Your task to perform on an android device: Open my contact list Image 0: 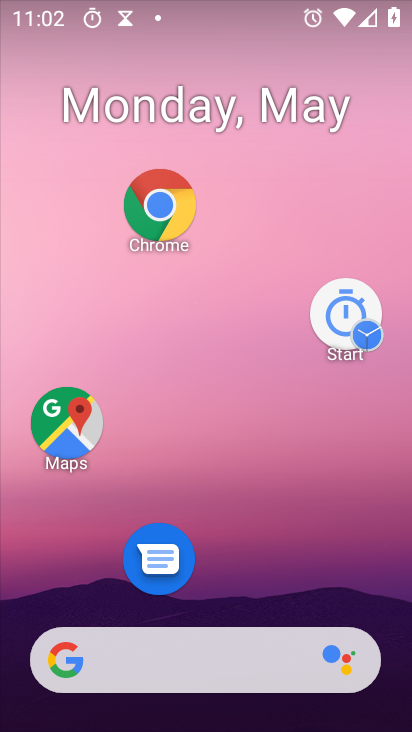
Step 0: drag from (248, 706) to (128, 76)
Your task to perform on an android device: Open my contact list Image 1: 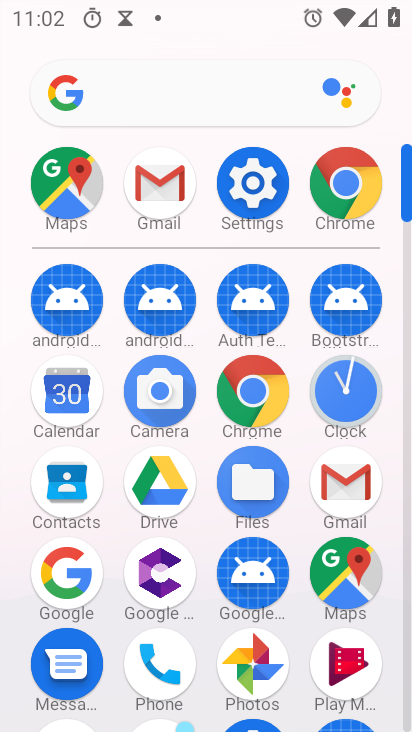
Step 1: click (66, 468)
Your task to perform on an android device: Open my contact list Image 2: 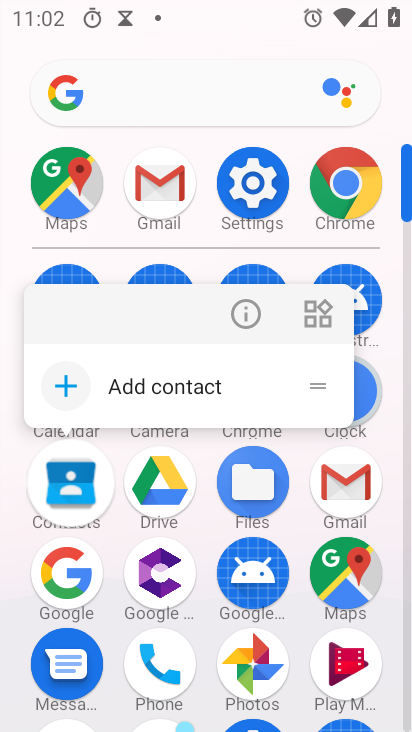
Step 2: click (75, 463)
Your task to perform on an android device: Open my contact list Image 3: 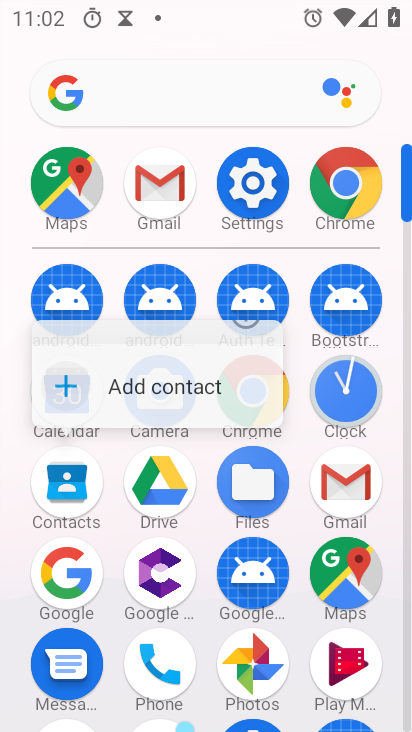
Step 3: click (74, 463)
Your task to perform on an android device: Open my contact list Image 4: 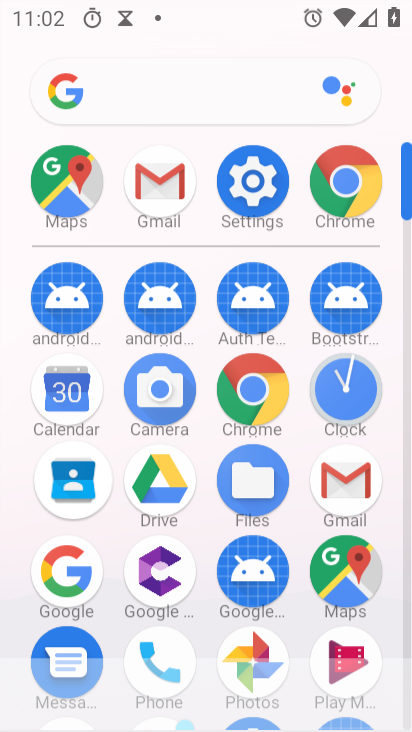
Step 4: click (75, 466)
Your task to perform on an android device: Open my contact list Image 5: 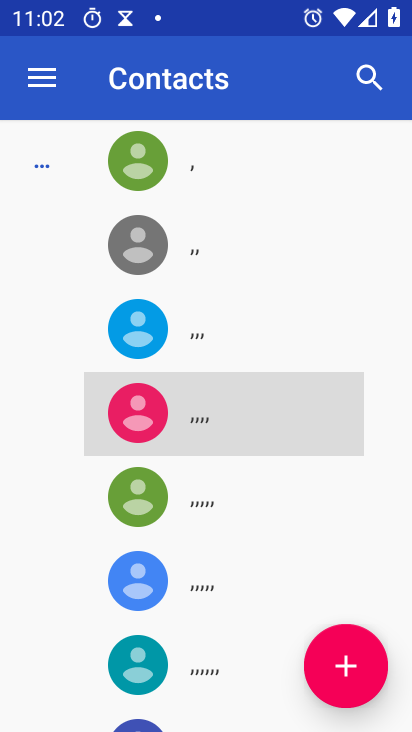
Step 5: click (75, 466)
Your task to perform on an android device: Open my contact list Image 6: 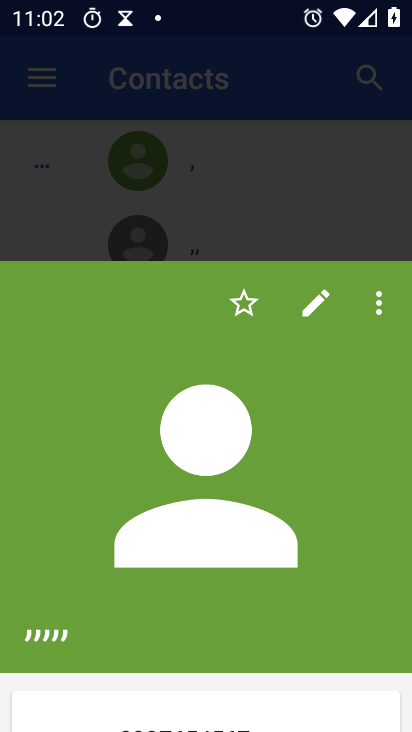
Step 6: press back button
Your task to perform on an android device: Open my contact list Image 7: 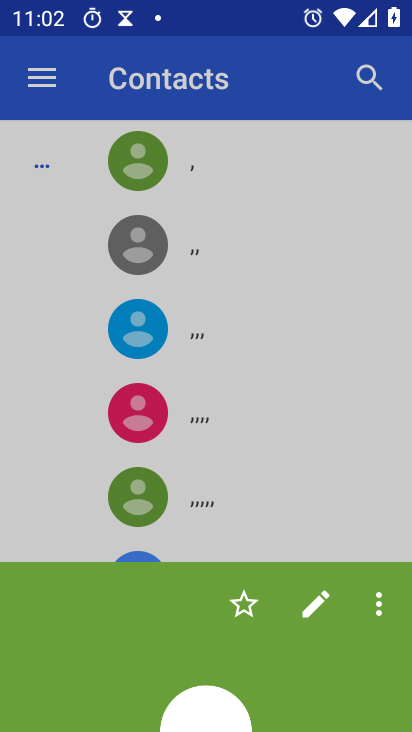
Step 7: press back button
Your task to perform on an android device: Open my contact list Image 8: 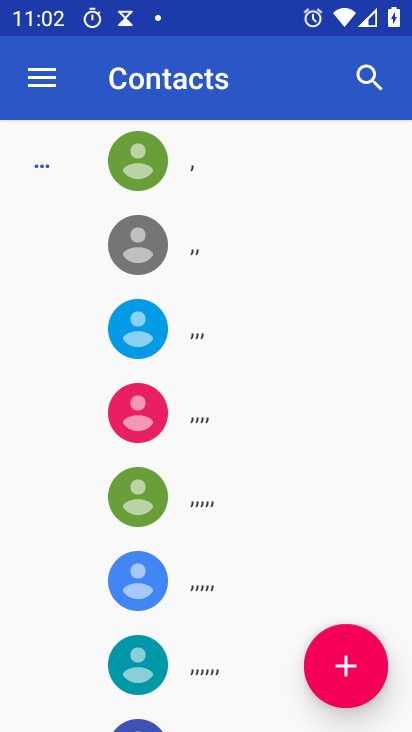
Step 8: press back button
Your task to perform on an android device: Open my contact list Image 9: 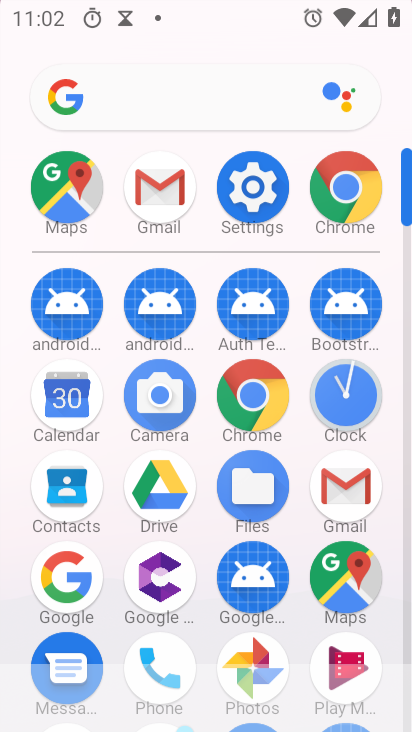
Step 9: press back button
Your task to perform on an android device: Open my contact list Image 10: 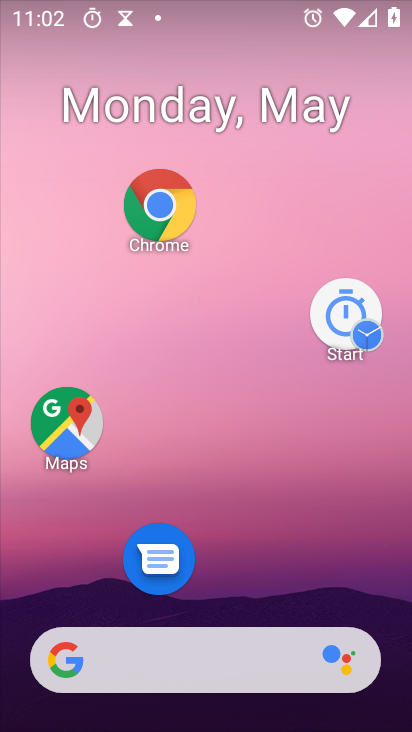
Step 10: press home button
Your task to perform on an android device: Open my contact list Image 11: 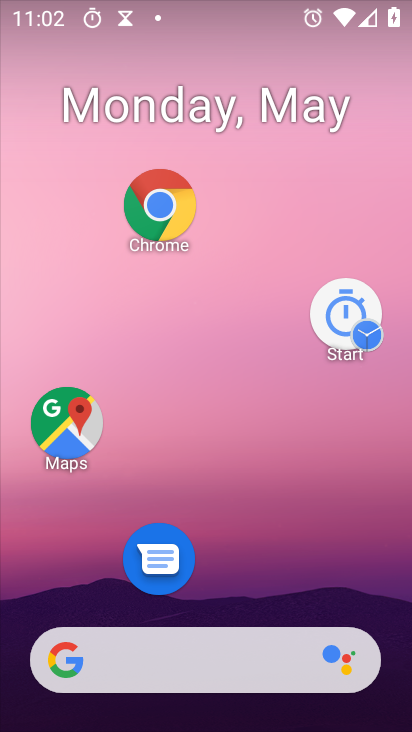
Step 11: click (196, 211)
Your task to perform on an android device: Open my contact list Image 12: 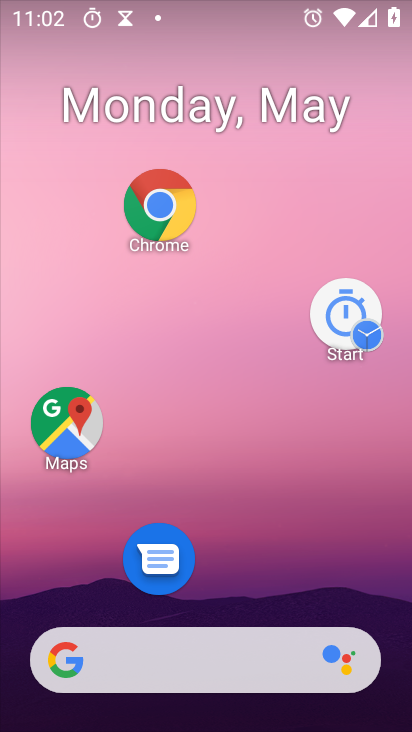
Step 12: drag from (265, 612) to (224, 90)
Your task to perform on an android device: Open my contact list Image 13: 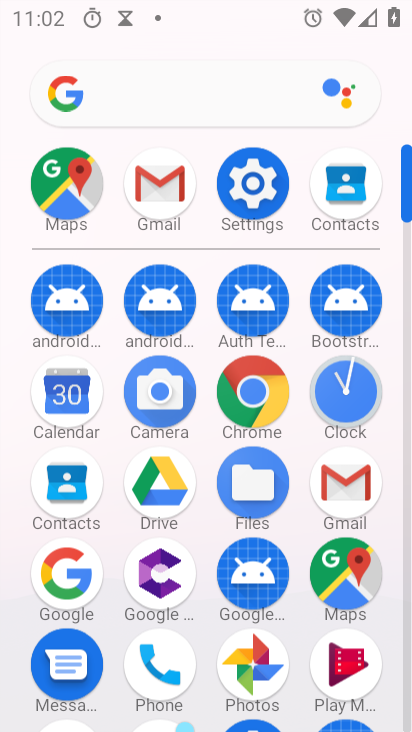
Step 13: drag from (192, 294) to (144, 27)
Your task to perform on an android device: Open my contact list Image 14: 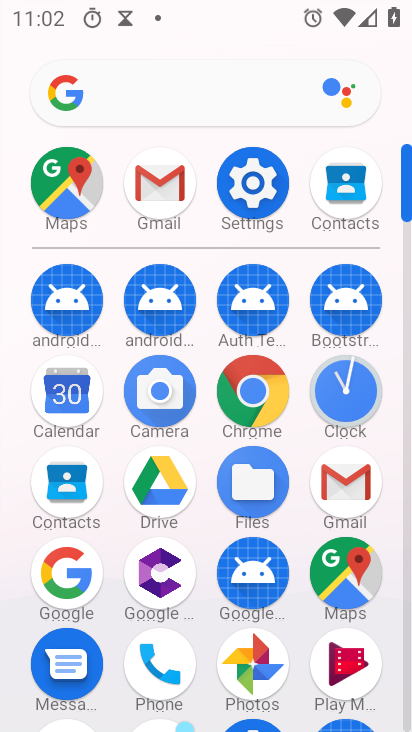
Step 14: drag from (200, 299) to (167, 55)
Your task to perform on an android device: Open my contact list Image 15: 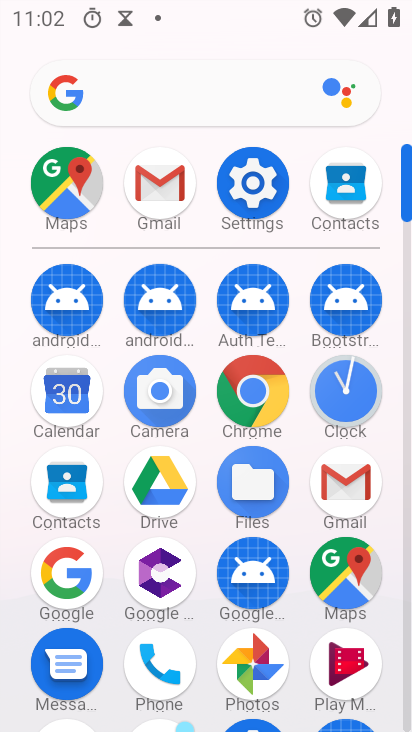
Step 15: drag from (159, 118) to (143, 61)
Your task to perform on an android device: Open my contact list Image 16: 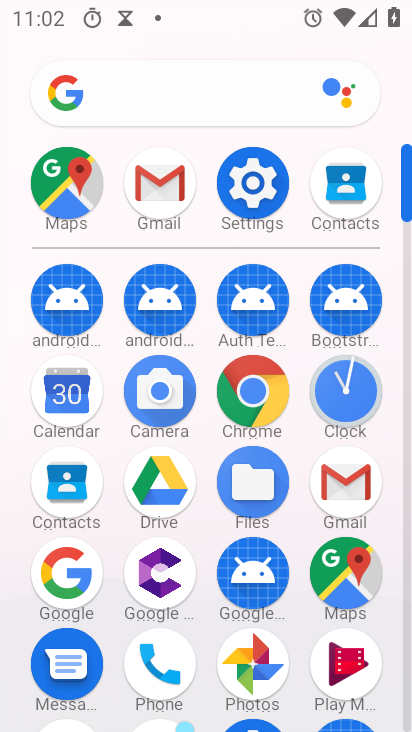
Step 16: click (279, 11)
Your task to perform on an android device: Open my contact list Image 17: 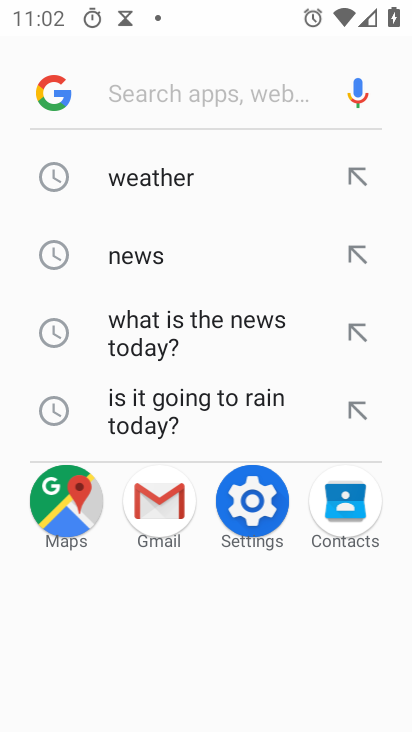
Step 17: press back button
Your task to perform on an android device: Open my contact list Image 18: 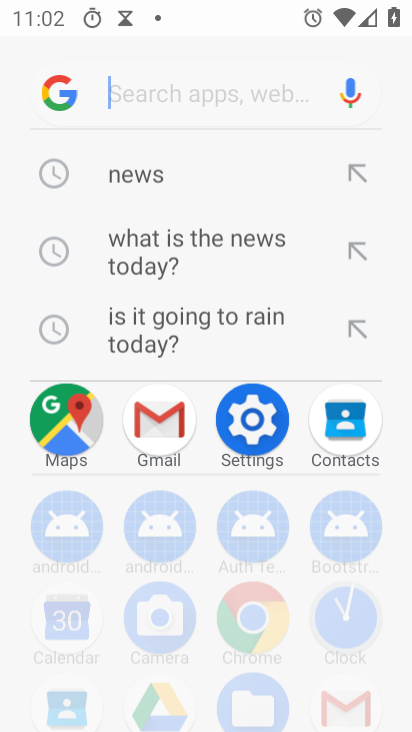
Step 18: press back button
Your task to perform on an android device: Open my contact list Image 19: 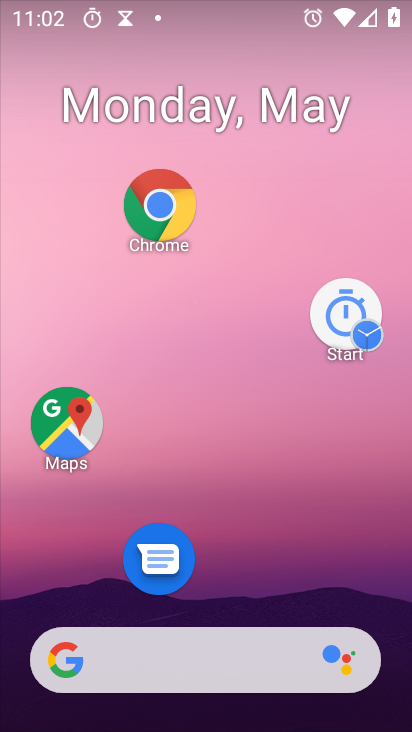
Step 19: drag from (232, 412) to (170, 118)
Your task to perform on an android device: Open my contact list Image 20: 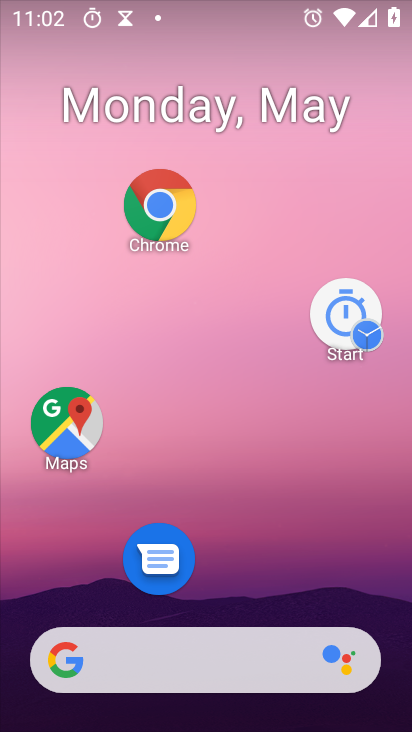
Step 20: drag from (162, 114) to (157, 75)
Your task to perform on an android device: Open my contact list Image 21: 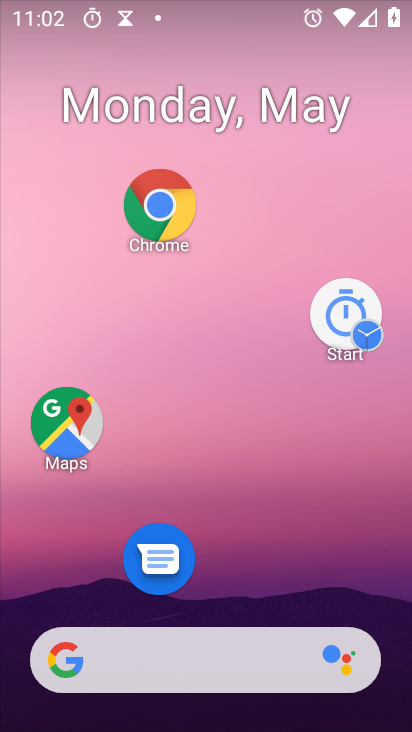
Step 21: drag from (270, 592) to (178, 65)
Your task to perform on an android device: Open my contact list Image 22: 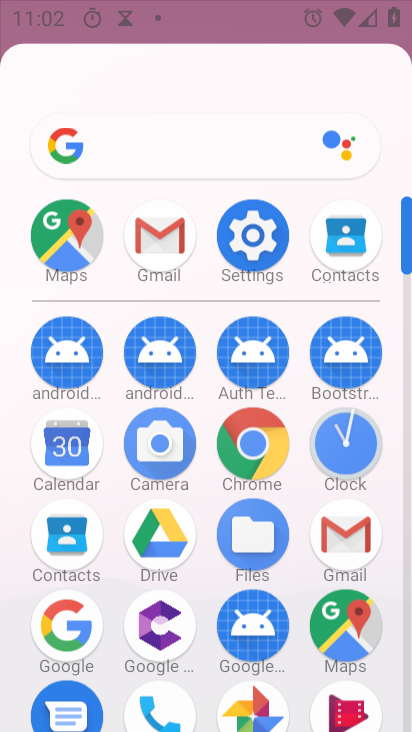
Step 22: drag from (351, 568) to (263, 81)
Your task to perform on an android device: Open my contact list Image 23: 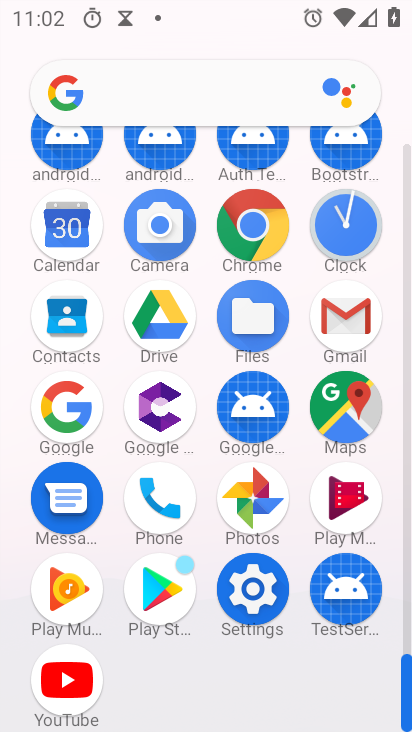
Step 23: click (70, 316)
Your task to perform on an android device: Open my contact list Image 24: 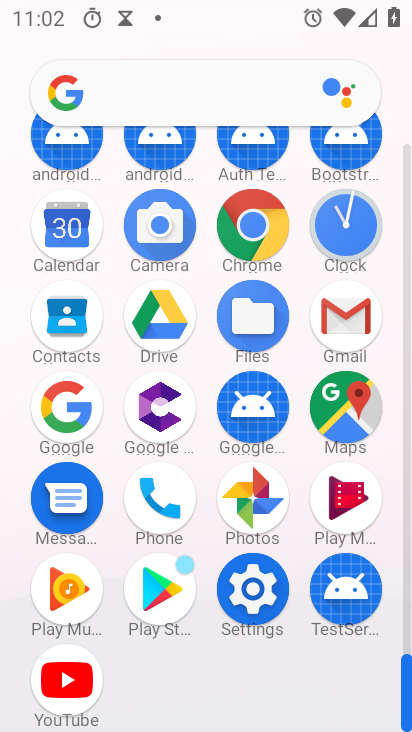
Step 24: click (70, 316)
Your task to perform on an android device: Open my contact list Image 25: 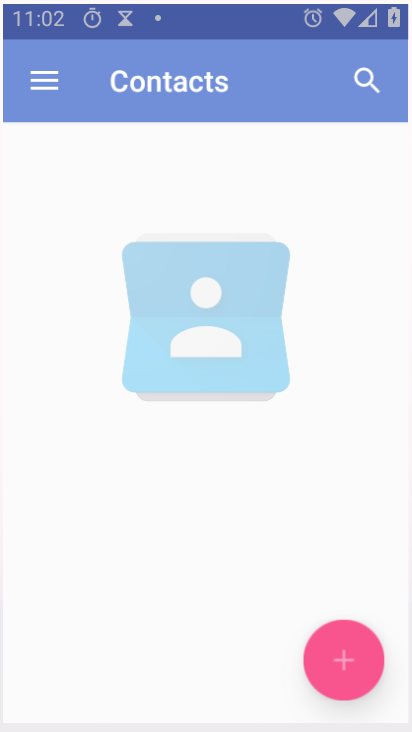
Step 25: click (72, 316)
Your task to perform on an android device: Open my contact list Image 26: 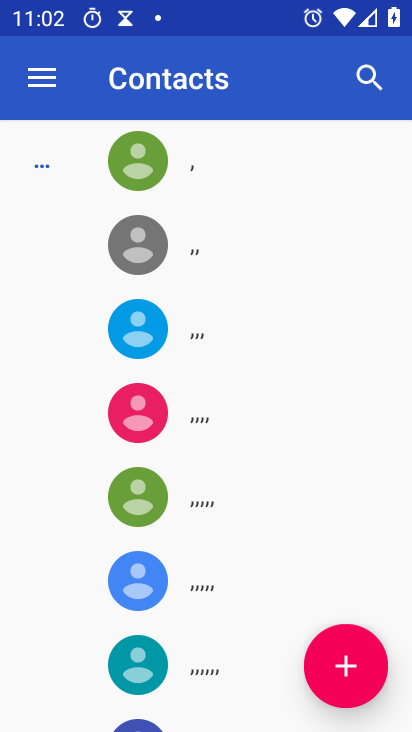
Step 26: drag from (262, 557) to (195, 168)
Your task to perform on an android device: Open my contact list Image 27: 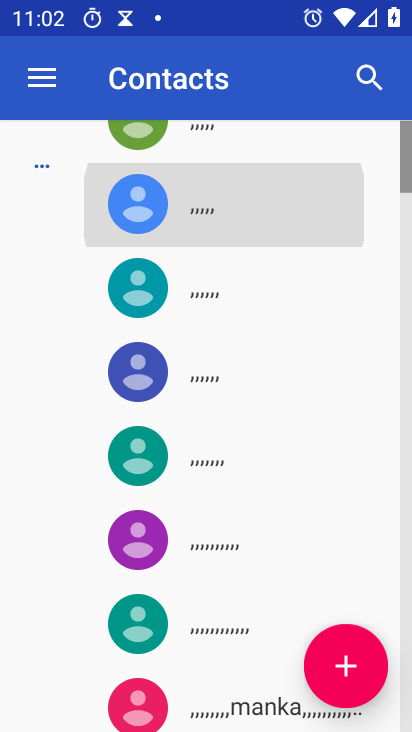
Step 27: drag from (209, 445) to (182, 118)
Your task to perform on an android device: Open my contact list Image 28: 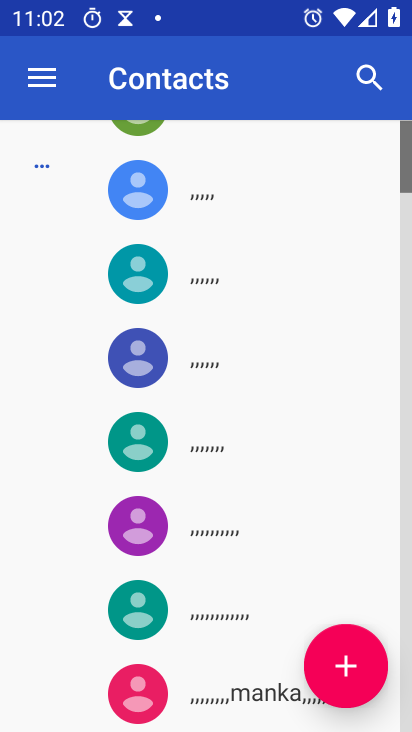
Step 28: drag from (214, 302) to (198, 44)
Your task to perform on an android device: Open my contact list Image 29: 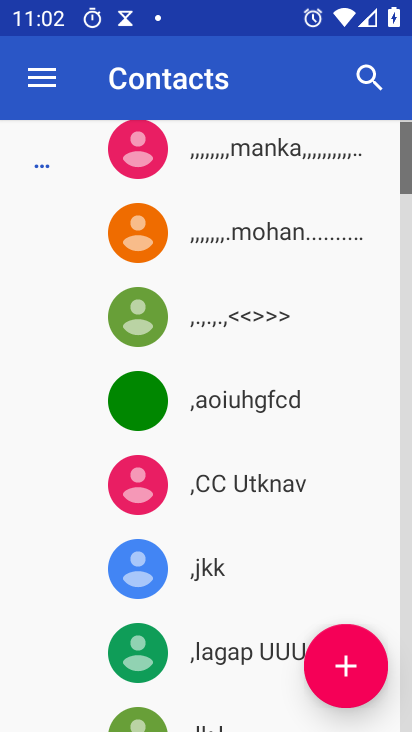
Step 29: drag from (215, 449) to (214, 0)
Your task to perform on an android device: Open my contact list Image 30: 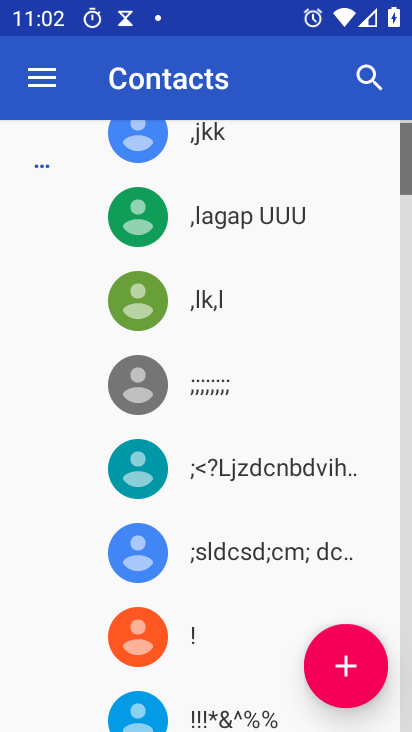
Step 30: drag from (221, 290) to (218, 36)
Your task to perform on an android device: Open my contact list Image 31: 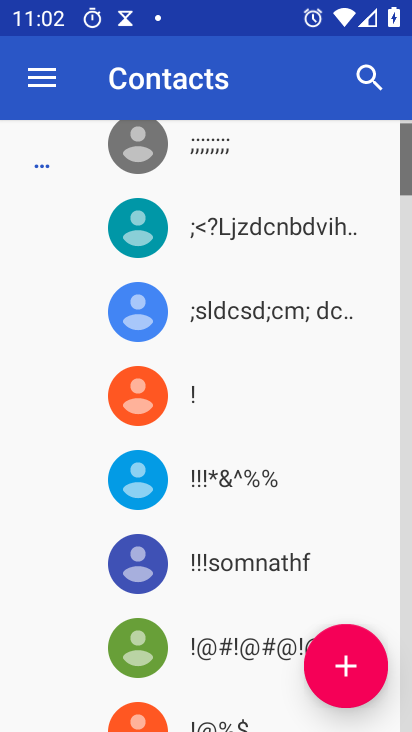
Step 31: drag from (216, 416) to (246, 6)
Your task to perform on an android device: Open my contact list Image 32: 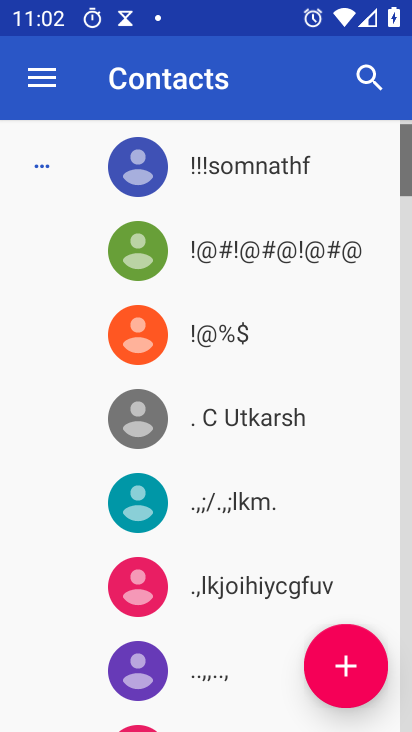
Step 32: drag from (227, 468) to (216, 102)
Your task to perform on an android device: Open my contact list Image 33: 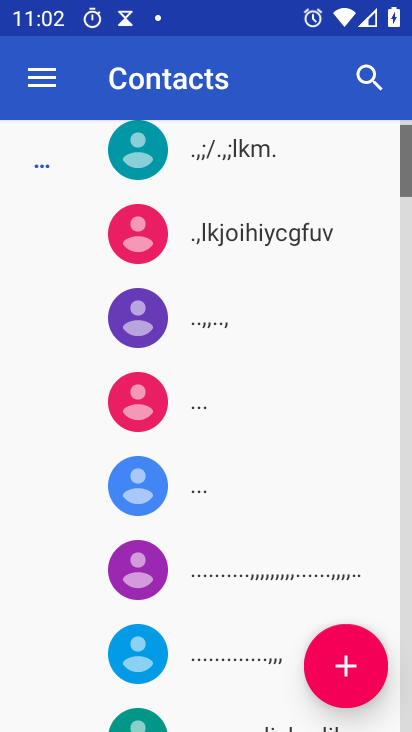
Step 33: drag from (230, 478) to (230, 120)
Your task to perform on an android device: Open my contact list Image 34: 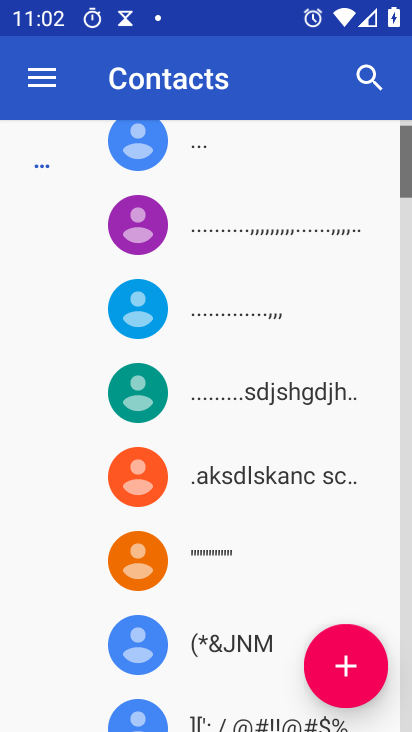
Step 34: drag from (237, 443) to (230, 118)
Your task to perform on an android device: Open my contact list Image 35: 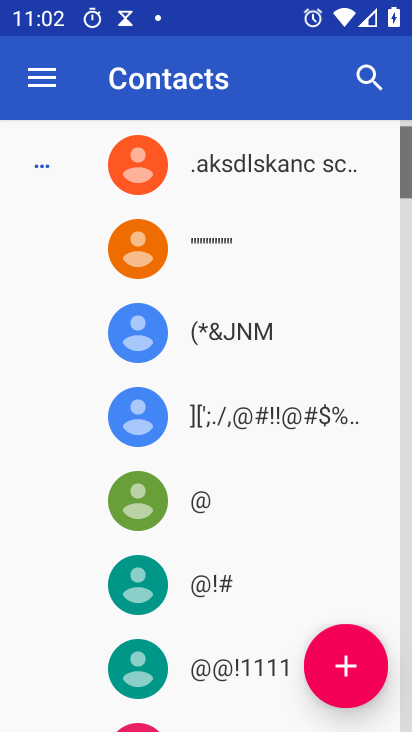
Step 35: drag from (219, 345) to (231, 104)
Your task to perform on an android device: Open my contact list Image 36: 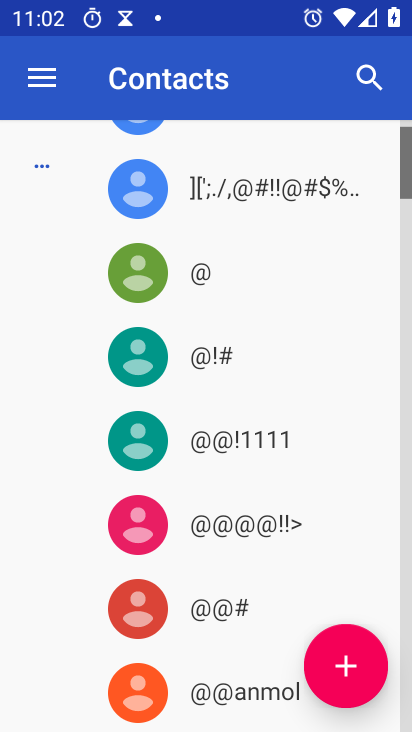
Step 36: drag from (217, 394) to (198, 232)
Your task to perform on an android device: Open my contact list Image 37: 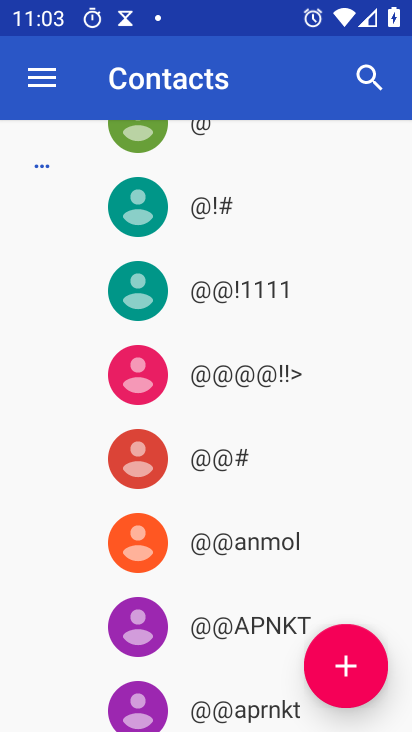
Step 37: drag from (239, 527) to (233, 172)
Your task to perform on an android device: Open my contact list Image 38: 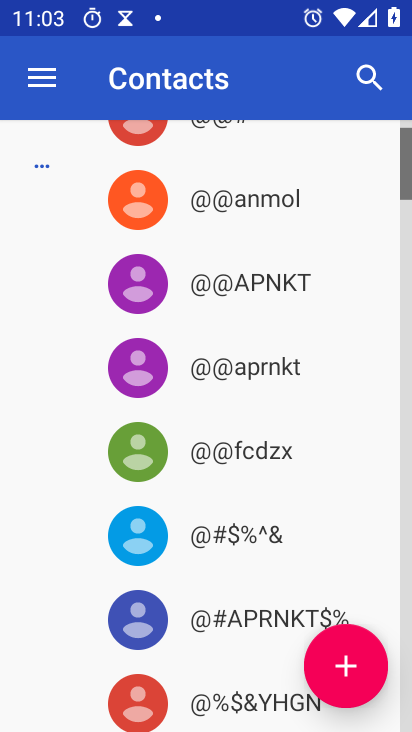
Step 38: click (203, 180)
Your task to perform on an android device: Open my contact list Image 39: 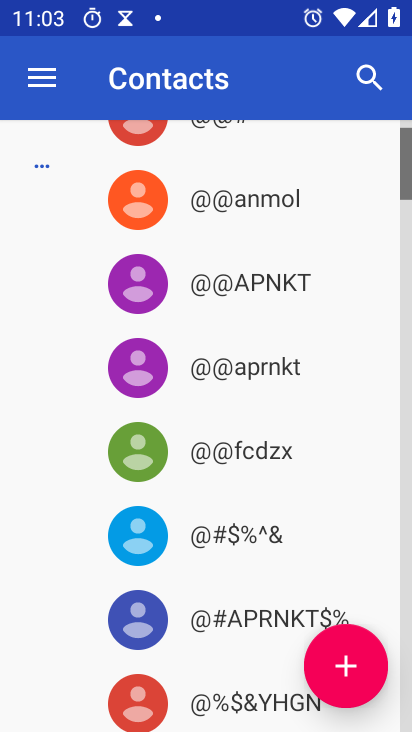
Step 39: task complete